Your task to perform on an android device: delete location history Image 0: 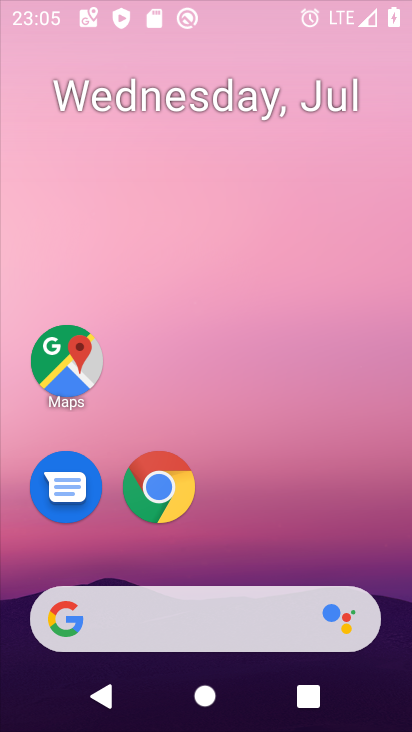
Step 0: drag from (196, 543) to (303, 23)
Your task to perform on an android device: delete location history Image 1: 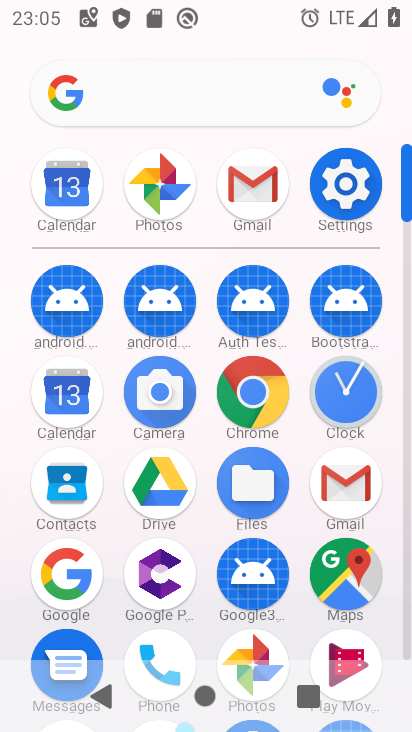
Step 1: click (333, 565)
Your task to perform on an android device: delete location history Image 2: 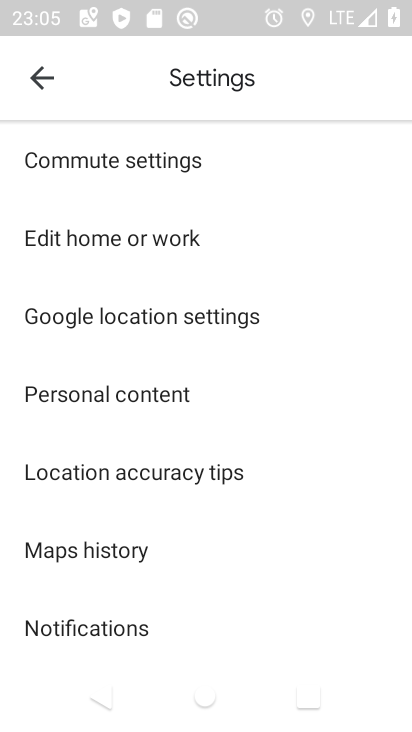
Step 2: drag from (153, 603) to (215, 8)
Your task to perform on an android device: delete location history Image 3: 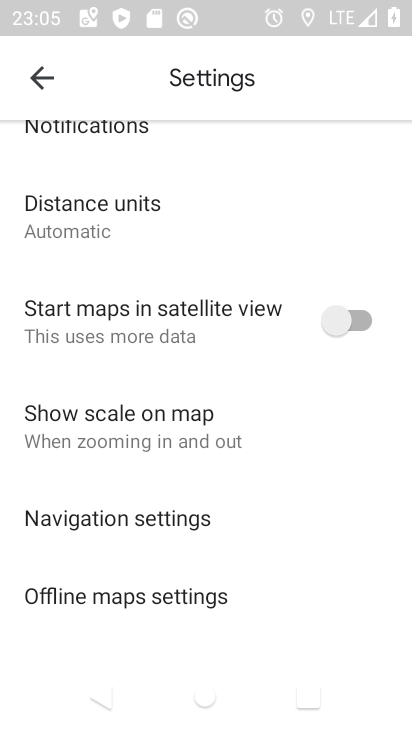
Step 3: drag from (145, 547) to (155, 13)
Your task to perform on an android device: delete location history Image 4: 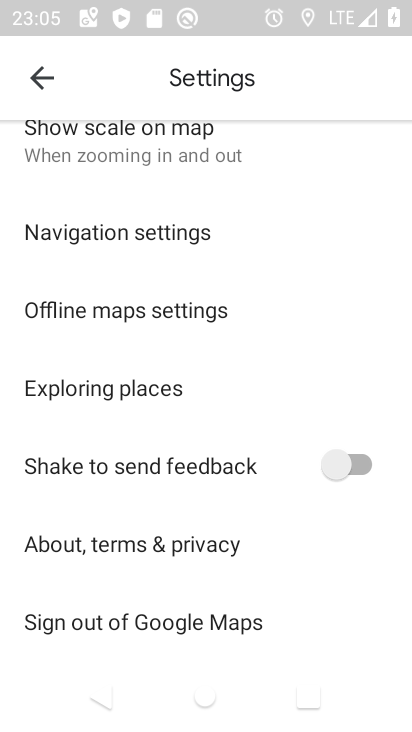
Step 4: drag from (156, 607) to (252, 71)
Your task to perform on an android device: delete location history Image 5: 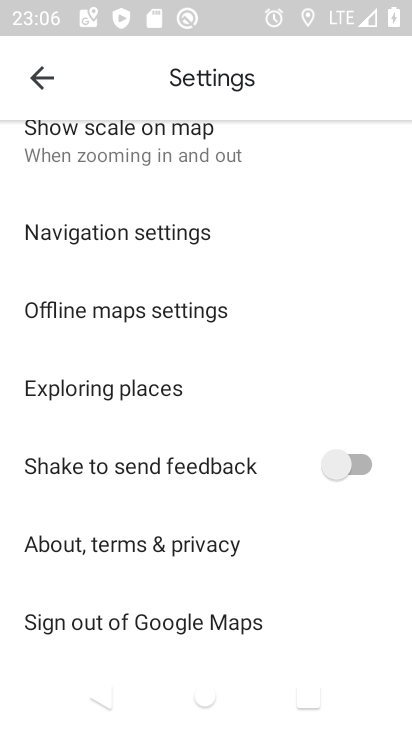
Step 5: drag from (163, 168) to (103, 731)
Your task to perform on an android device: delete location history Image 6: 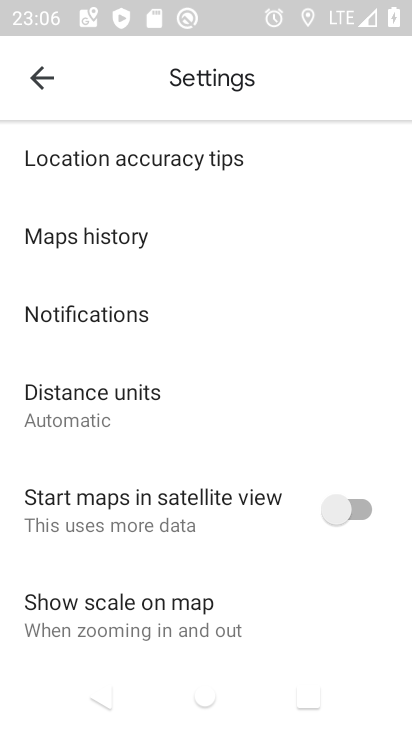
Step 6: drag from (199, 195) to (148, 701)
Your task to perform on an android device: delete location history Image 7: 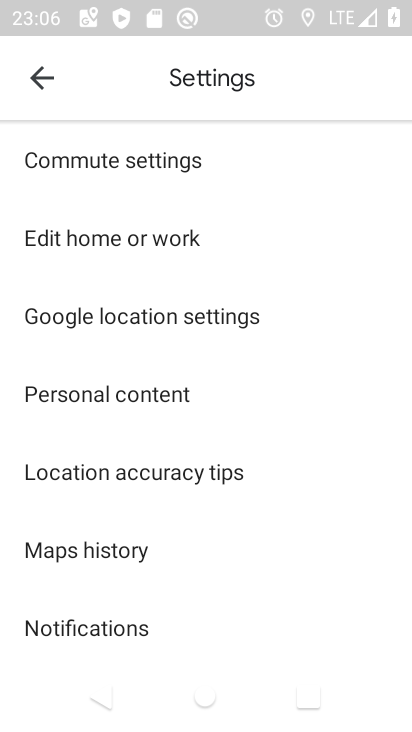
Step 7: click (42, 64)
Your task to perform on an android device: delete location history Image 8: 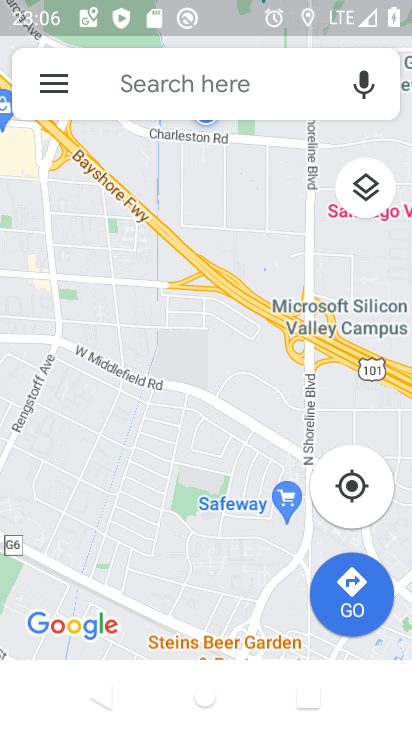
Step 8: click (48, 80)
Your task to perform on an android device: delete location history Image 9: 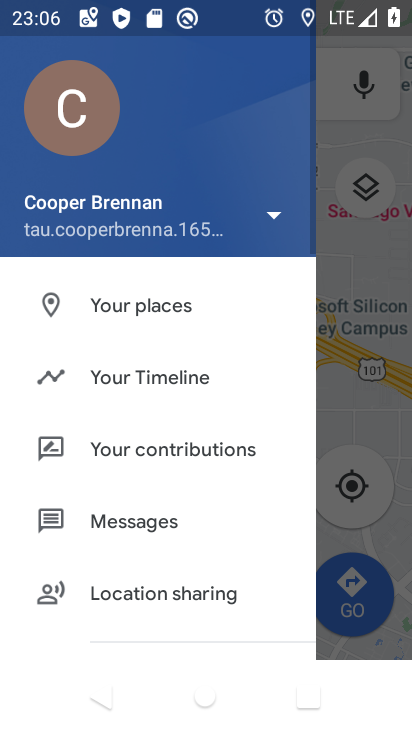
Step 9: click (196, 376)
Your task to perform on an android device: delete location history Image 10: 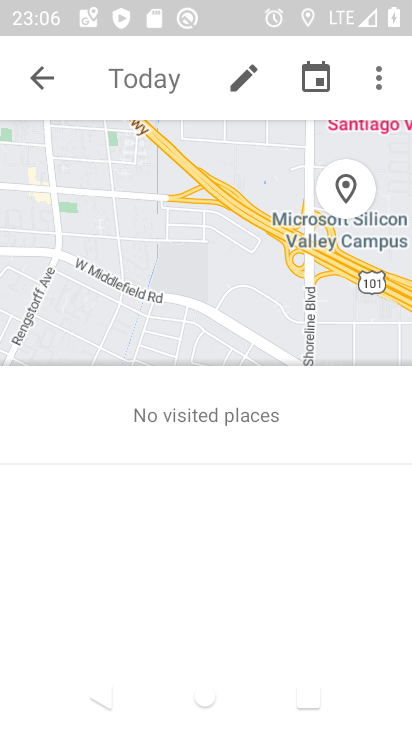
Step 10: click (382, 71)
Your task to perform on an android device: delete location history Image 11: 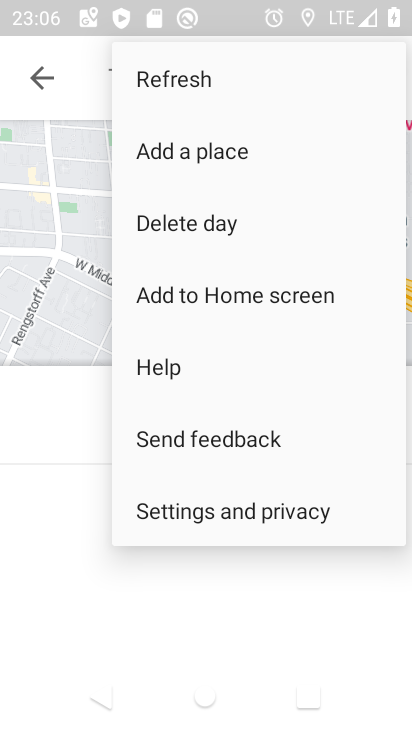
Step 11: click (237, 517)
Your task to perform on an android device: delete location history Image 12: 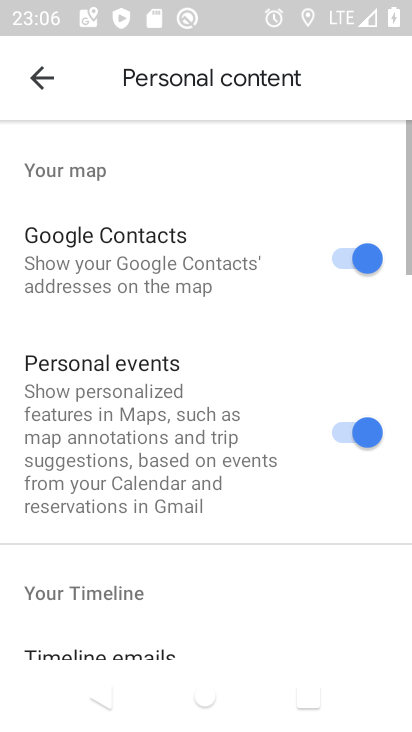
Step 12: drag from (182, 610) to (234, 100)
Your task to perform on an android device: delete location history Image 13: 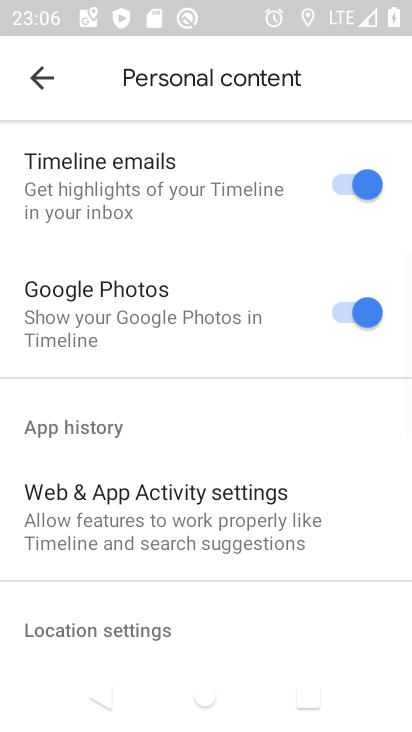
Step 13: drag from (134, 587) to (232, 122)
Your task to perform on an android device: delete location history Image 14: 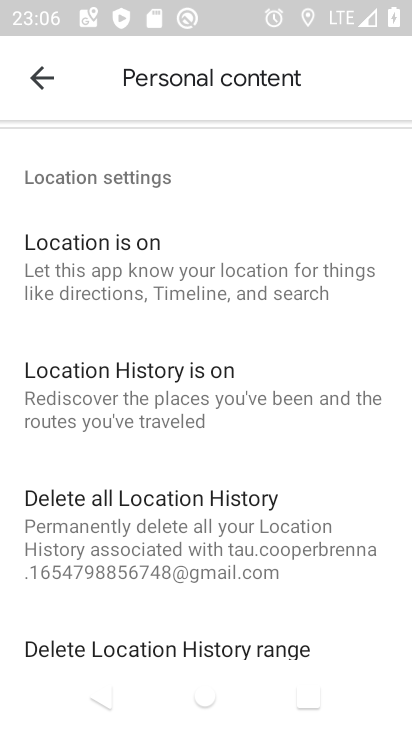
Step 14: click (213, 526)
Your task to perform on an android device: delete location history Image 15: 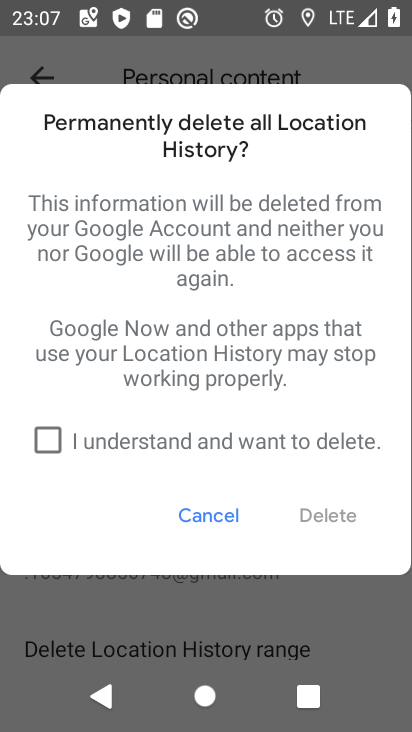
Step 15: click (78, 433)
Your task to perform on an android device: delete location history Image 16: 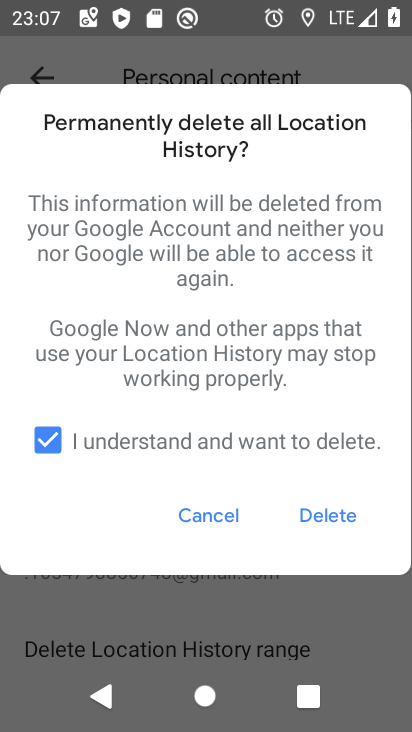
Step 16: click (332, 512)
Your task to perform on an android device: delete location history Image 17: 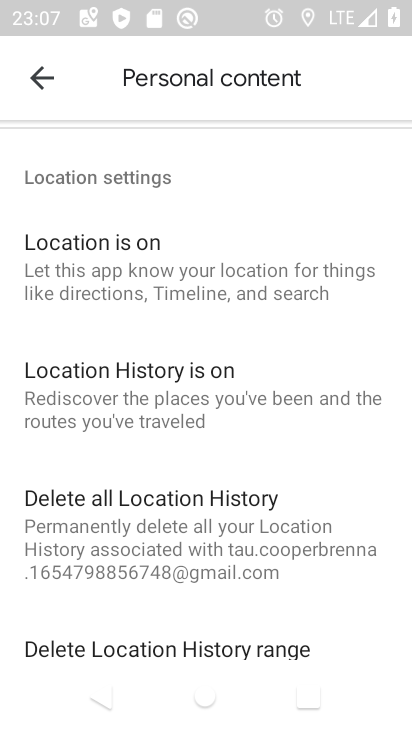
Step 17: task complete